Your task to perform on an android device: Open Google Chrome and open the bookmarks view Image 0: 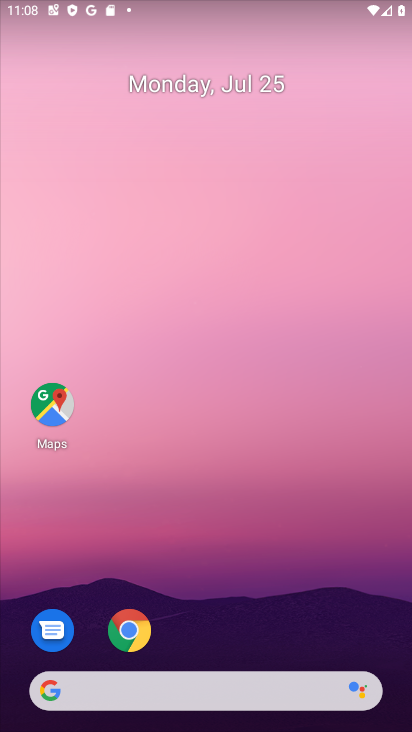
Step 0: click (134, 637)
Your task to perform on an android device: Open Google Chrome and open the bookmarks view Image 1: 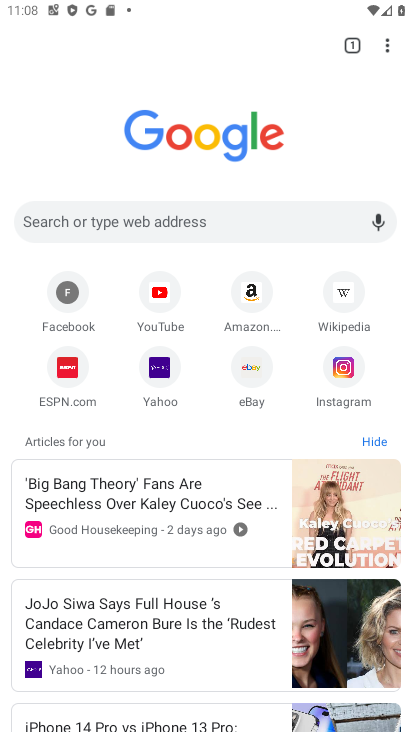
Step 1: click (389, 47)
Your task to perform on an android device: Open Google Chrome and open the bookmarks view Image 2: 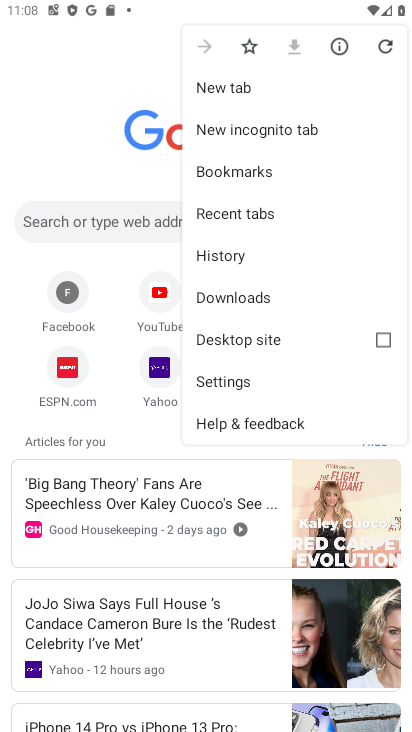
Step 2: click (237, 170)
Your task to perform on an android device: Open Google Chrome and open the bookmarks view Image 3: 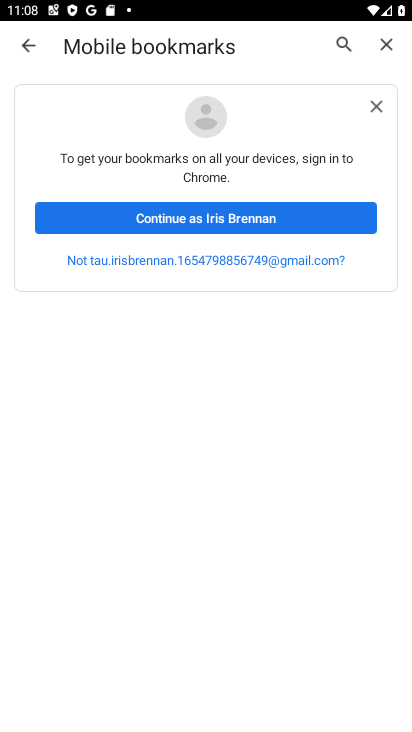
Step 3: click (177, 214)
Your task to perform on an android device: Open Google Chrome and open the bookmarks view Image 4: 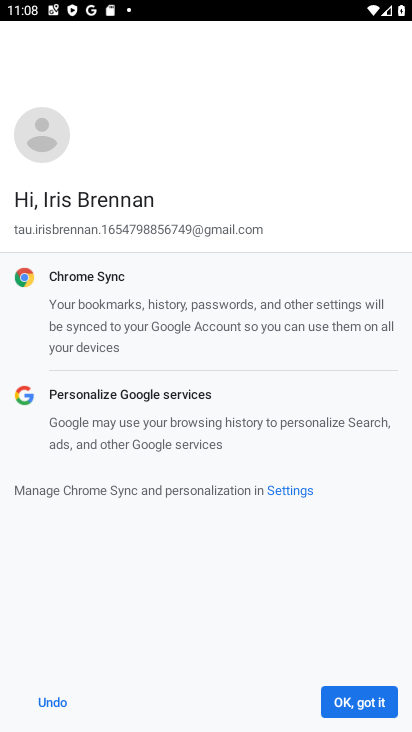
Step 4: click (350, 709)
Your task to perform on an android device: Open Google Chrome and open the bookmarks view Image 5: 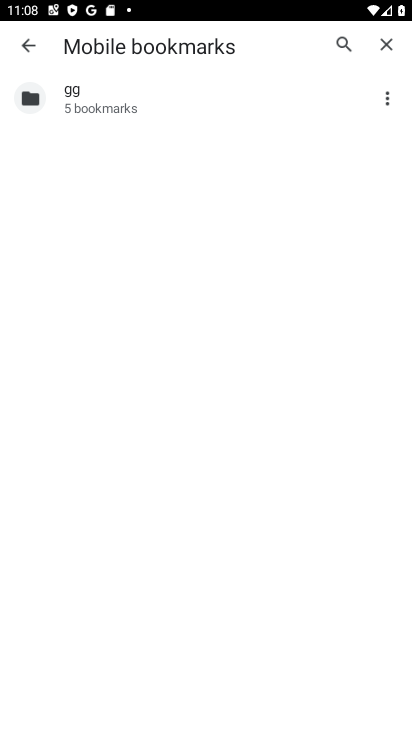
Step 5: task complete